Your task to perform on an android device: Show me recent news Image 0: 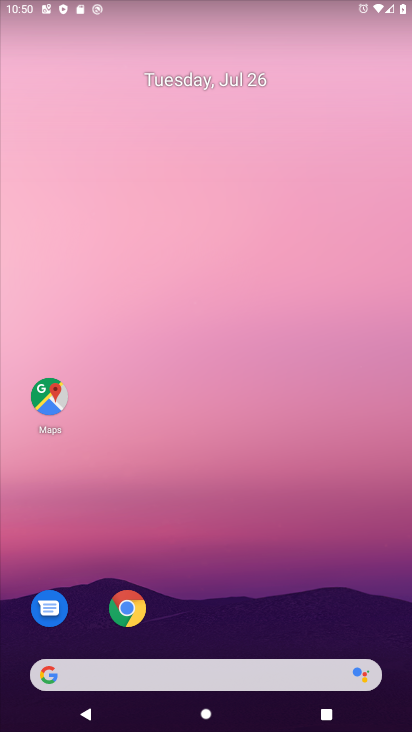
Step 0: drag from (4, 268) to (344, 319)
Your task to perform on an android device: Show me recent news Image 1: 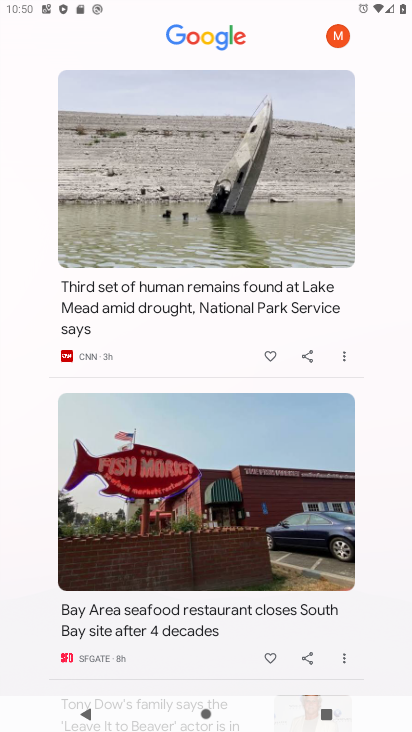
Step 1: task complete